Your task to perform on an android device: turn vacation reply on in the gmail app Image 0: 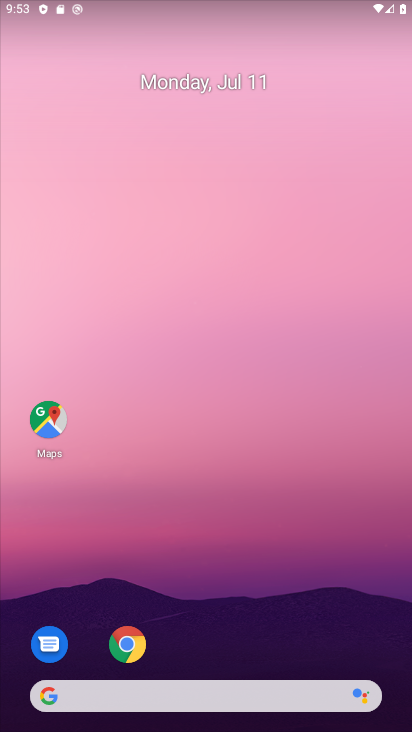
Step 0: drag from (226, 674) to (222, 356)
Your task to perform on an android device: turn vacation reply on in the gmail app Image 1: 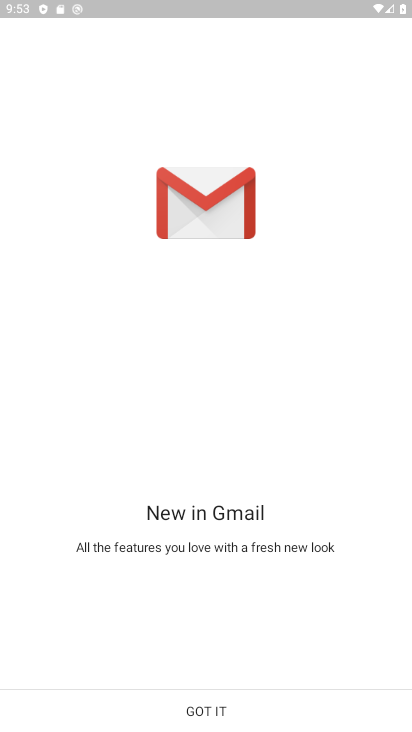
Step 1: press home button
Your task to perform on an android device: turn vacation reply on in the gmail app Image 2: 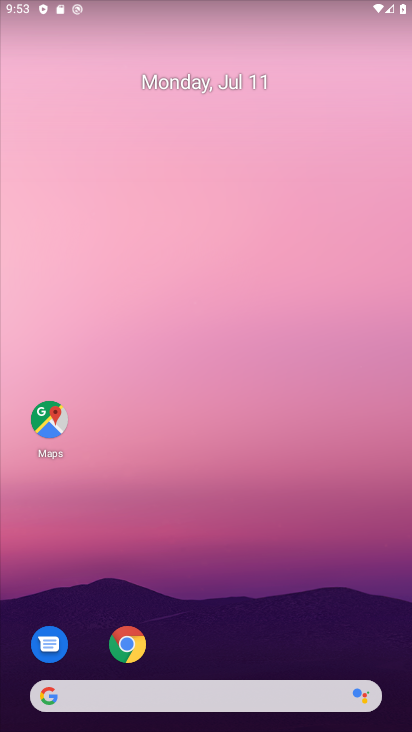
Step 2: drag from (174, 659) to (218, 295)
Your task to perform on an android device: turn vacation reply on in the gmail app Image 3: 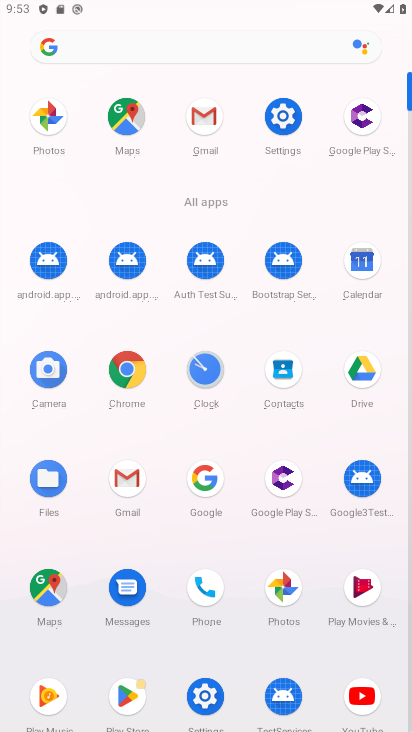
Step 3: click (134, 477)
Your task to perform on an android device: turn vacation reply on in the gmail app Image 4: 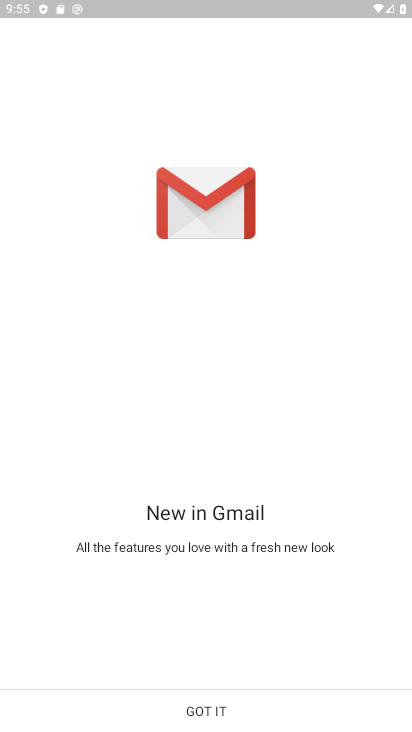
Step 4: click (195, 713)
Your task to perform on an android device: turn vacation reply on in the gmail app Image 5: 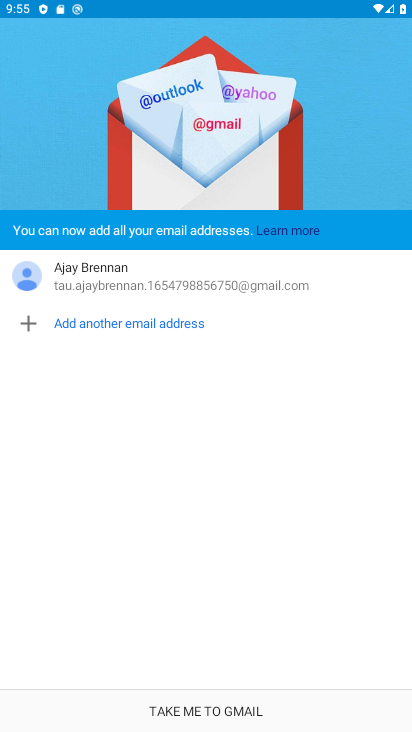
Step 5: click (202, 710)
Your task to perform on an android device: turn vacation reply on in the gmail app Image 6: 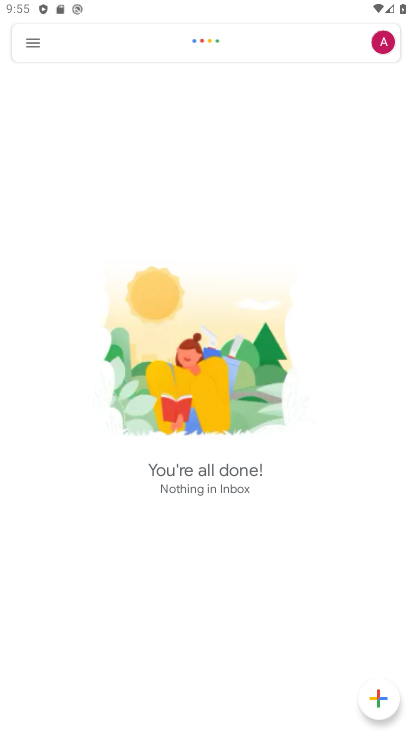
Step 6: click (36, 43)
Your task to perform on an android device: turn vacation reply on in the gmail app Image 7: 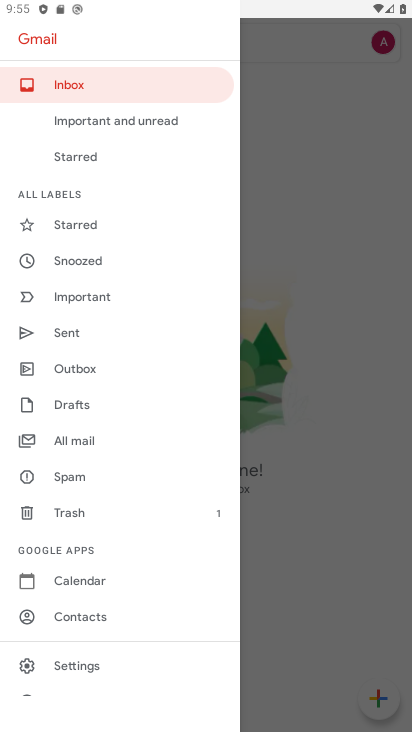
Step 7: click (88, 666)
Your task to perform on an android device: turn vacation reply on in the gmail app Image 8: 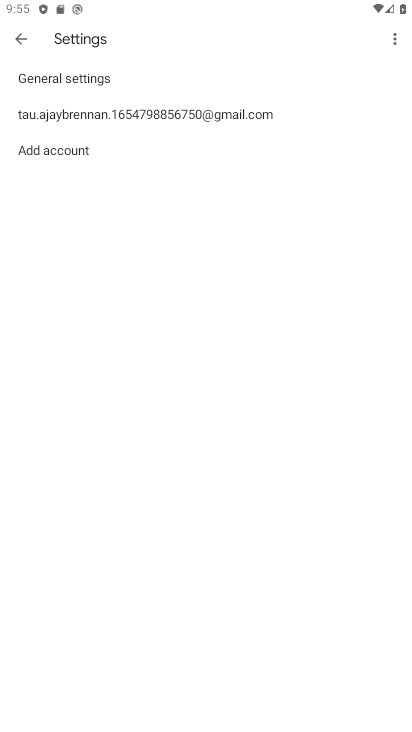
Step 8: click (162, 118)
Your task to perform on an android device: turn vacation reply on in the gmail app Image 9: 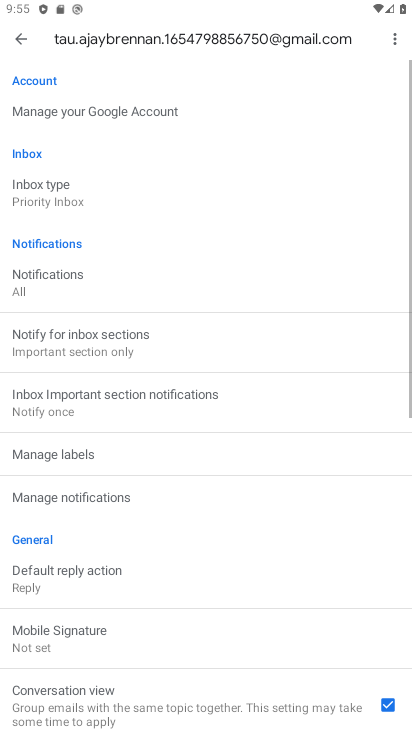
Step 9: drag from (147, 655) to (140, 304)
Your task to perform on an android device: turn vacation reply on in the gmail app Image 10: 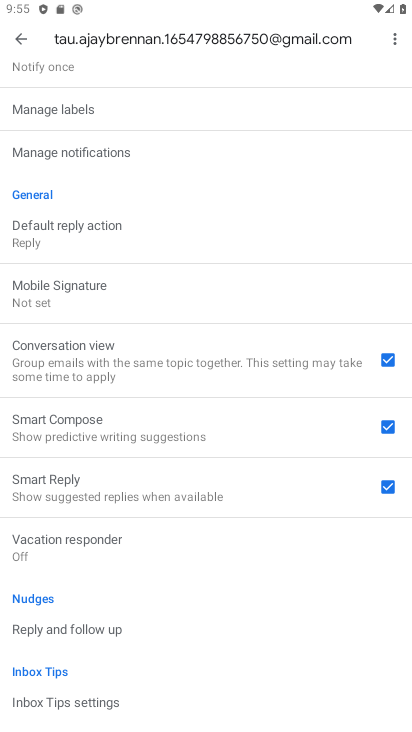
Step 10: click (48, 543)
Your task to perform on an android device: turn vacation reply on in the gmail app Image 11: 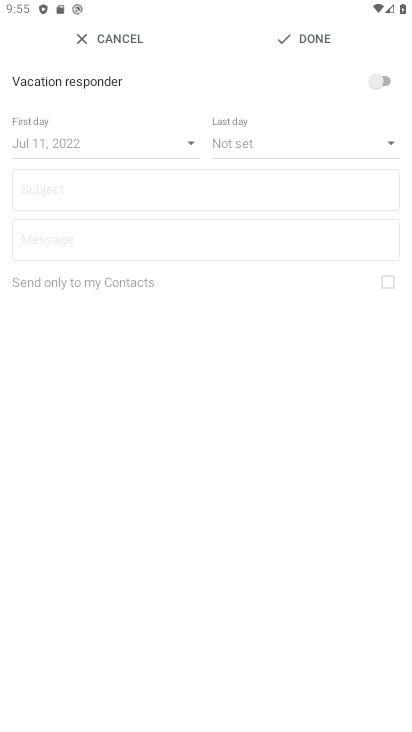
Step 11: click (381, 76)
Your task to perform on an android device: turn vacation reply on in the gmail app Image 12: 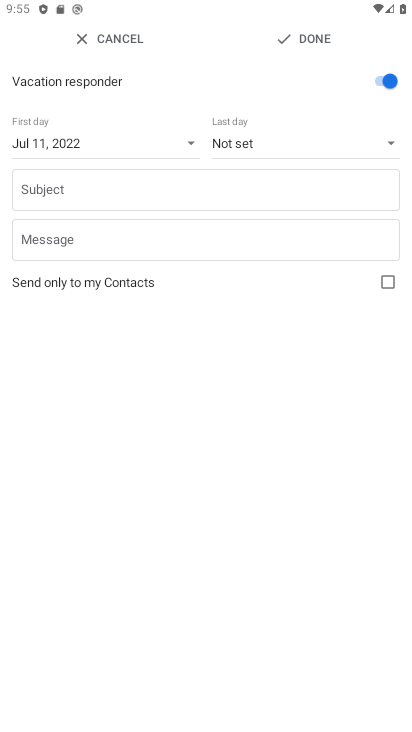
Step 12: task complete